Your task to perform on an android device: check data usage Image 0: 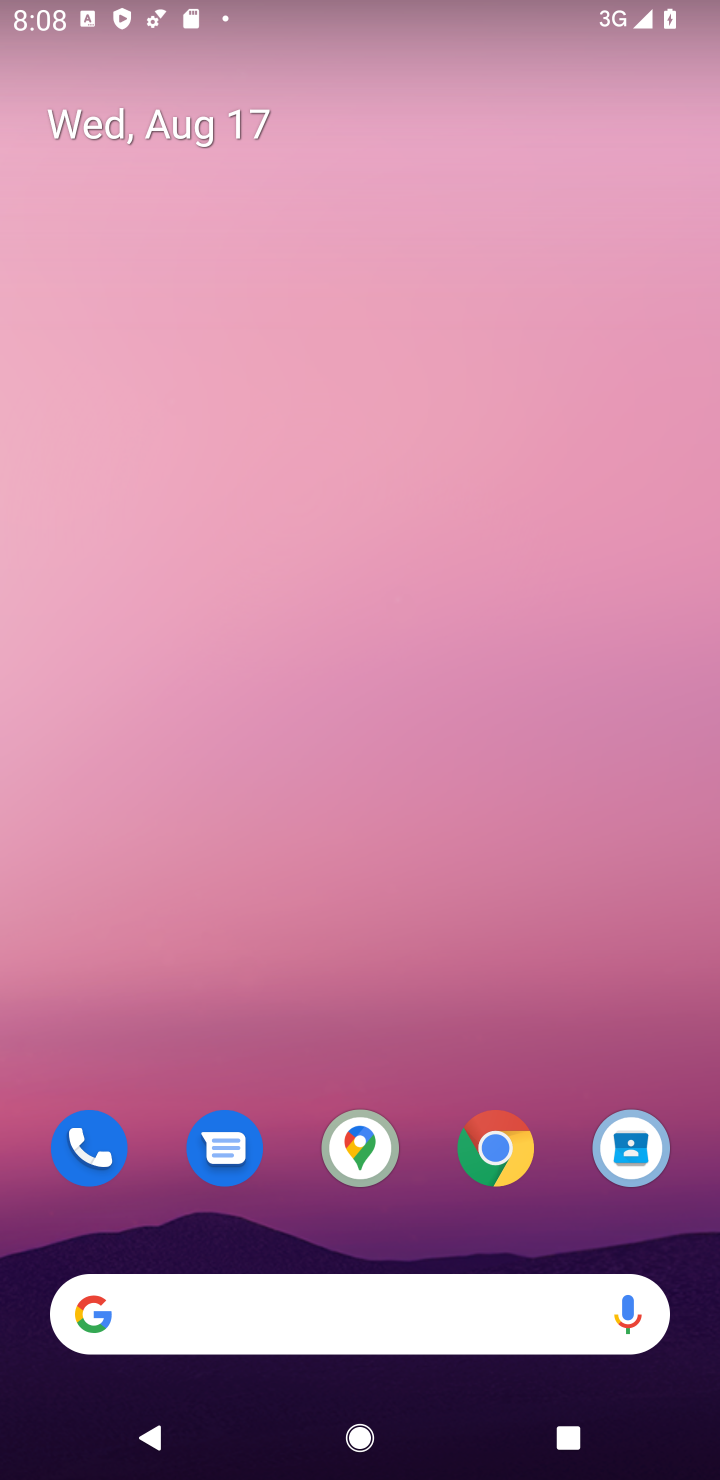
Step 0: drag from (560, 1224) to (509, 184)
Your task to perform on an android device: check data usage Image 1: 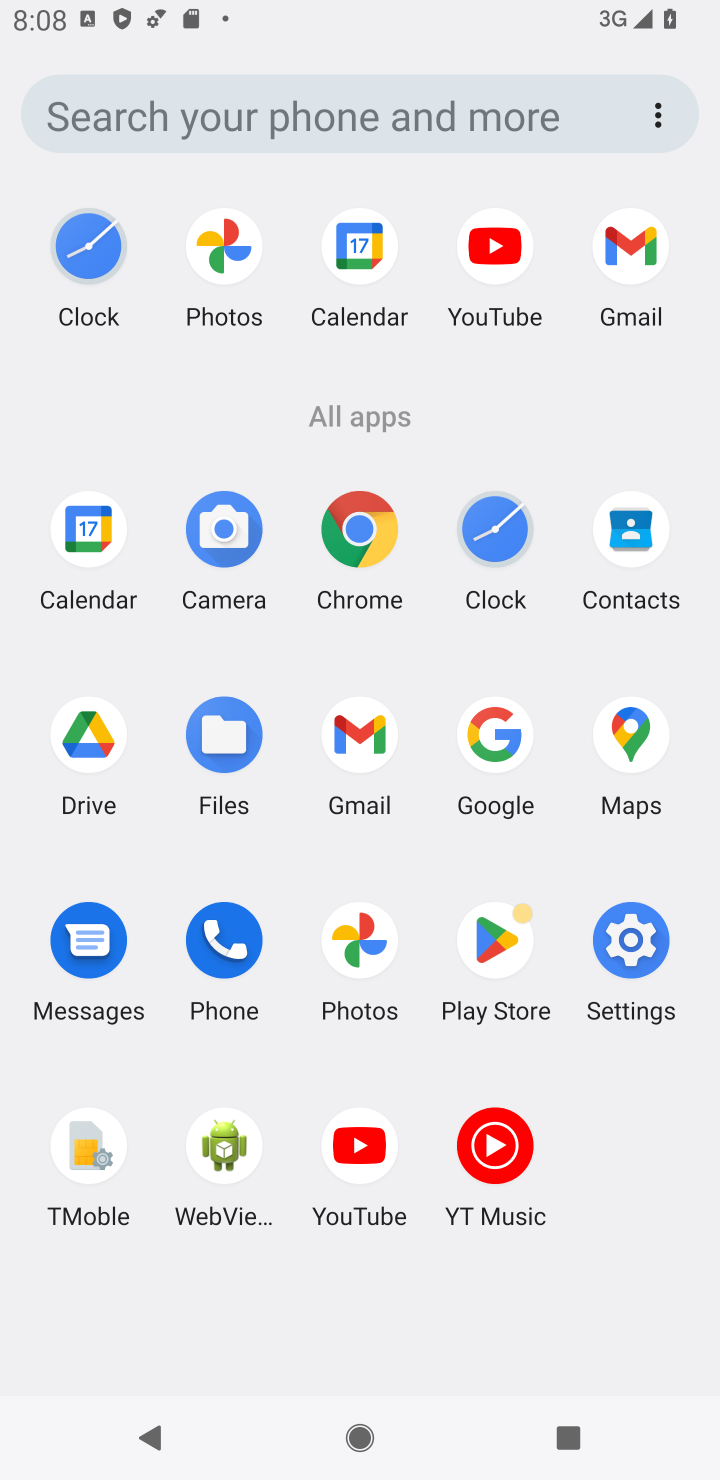
Step 1: click (629, 943)
Your task to perform on an android device: check data usage Image 2: 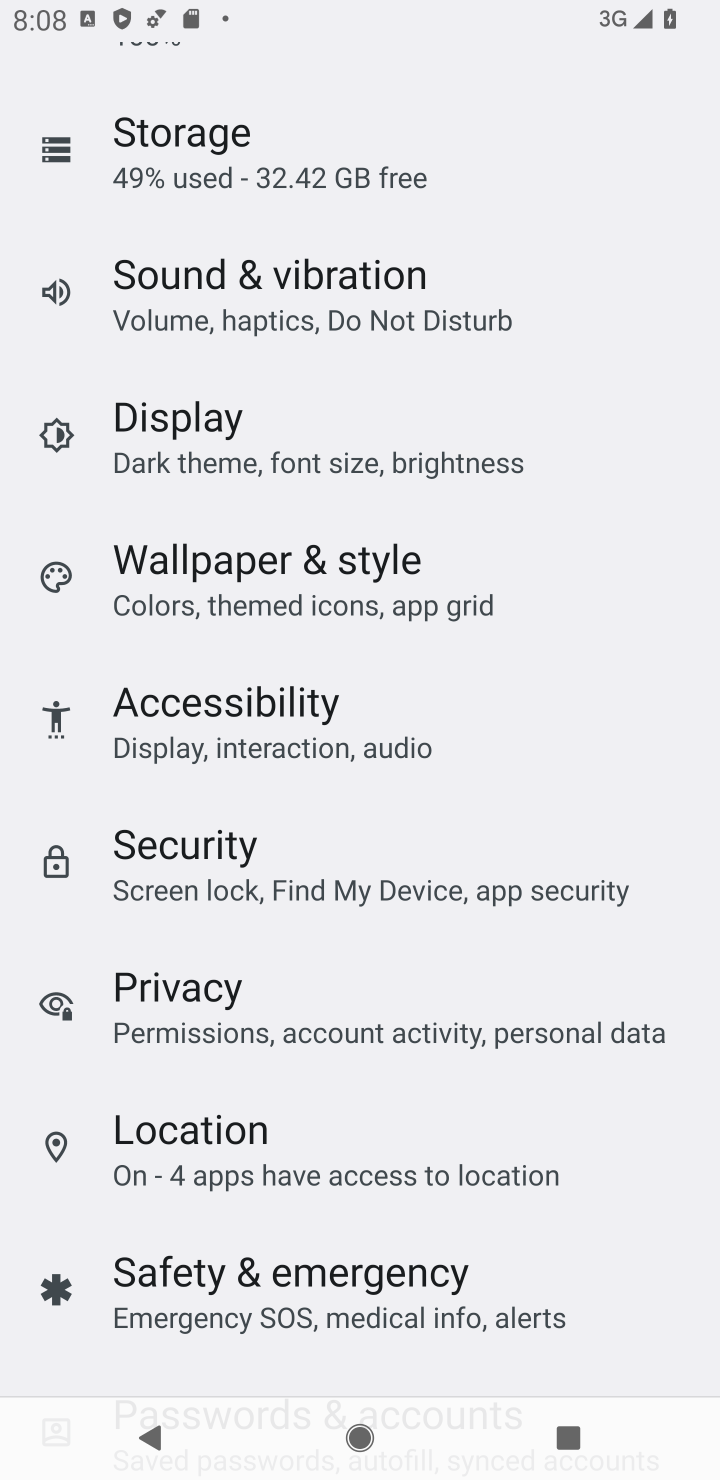
Step 2: drag from (610, 323) to (640, 892)
Your task to perform on an android device: check data usage Image 3: 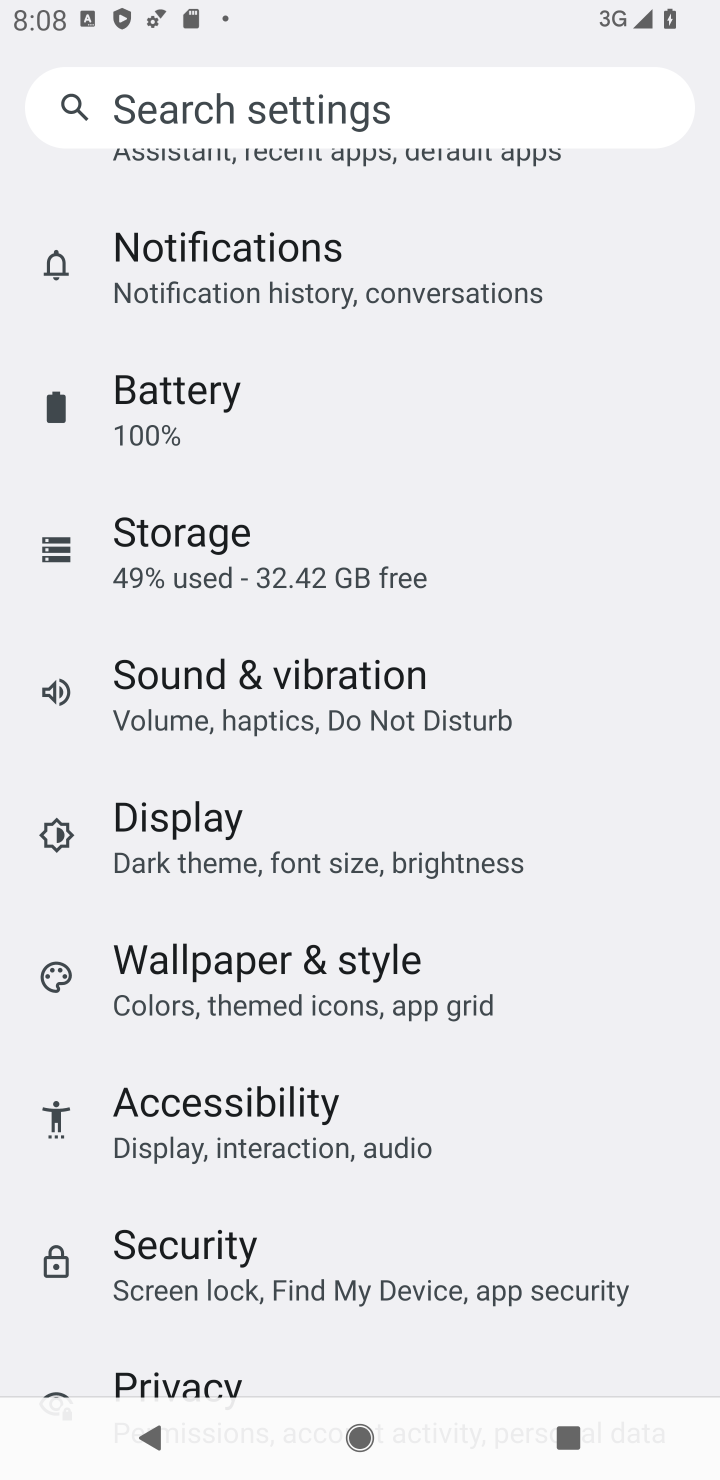
Step 3: drag from (598, 366) to (578, 867)
Your task to perform on an android device: check data usage Image 4: 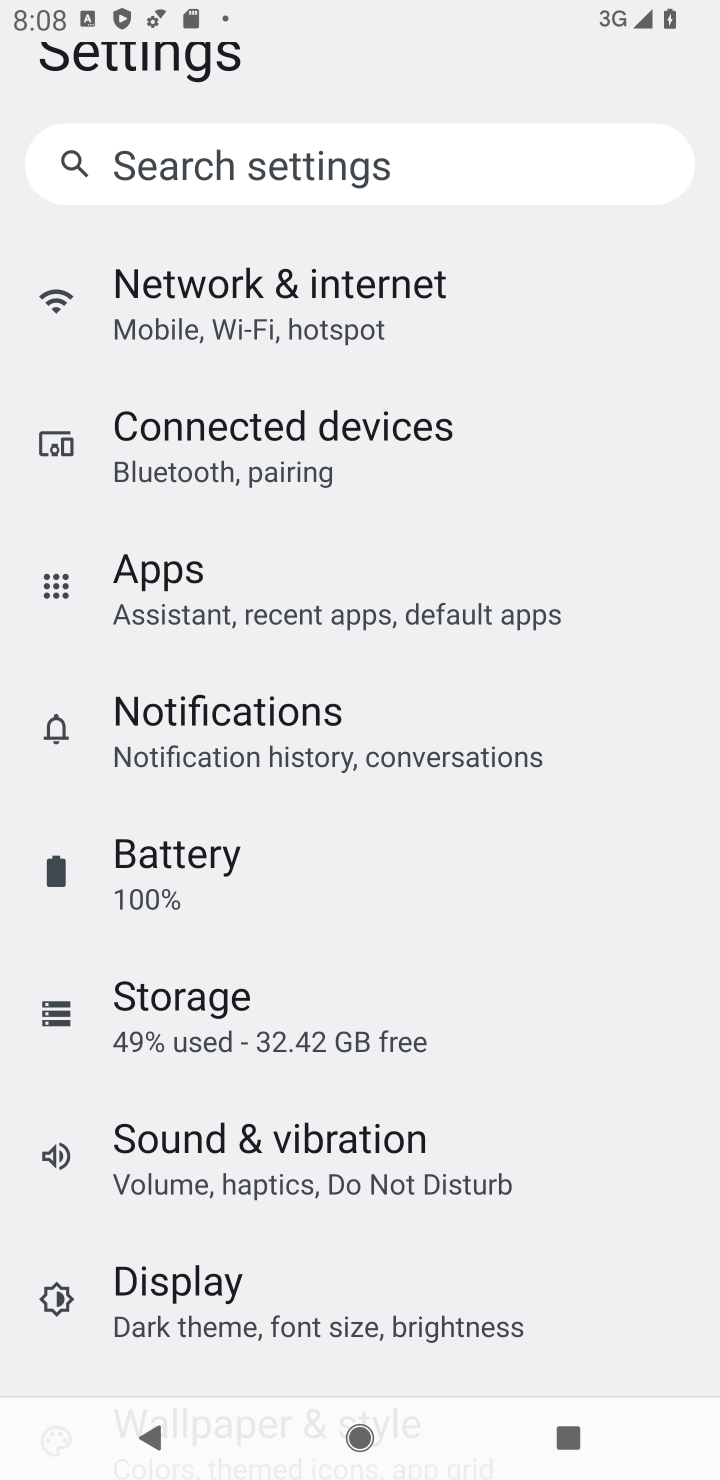
Step 4: click (217, 287)
Your task to perform on an android device: check data usage Image 5: 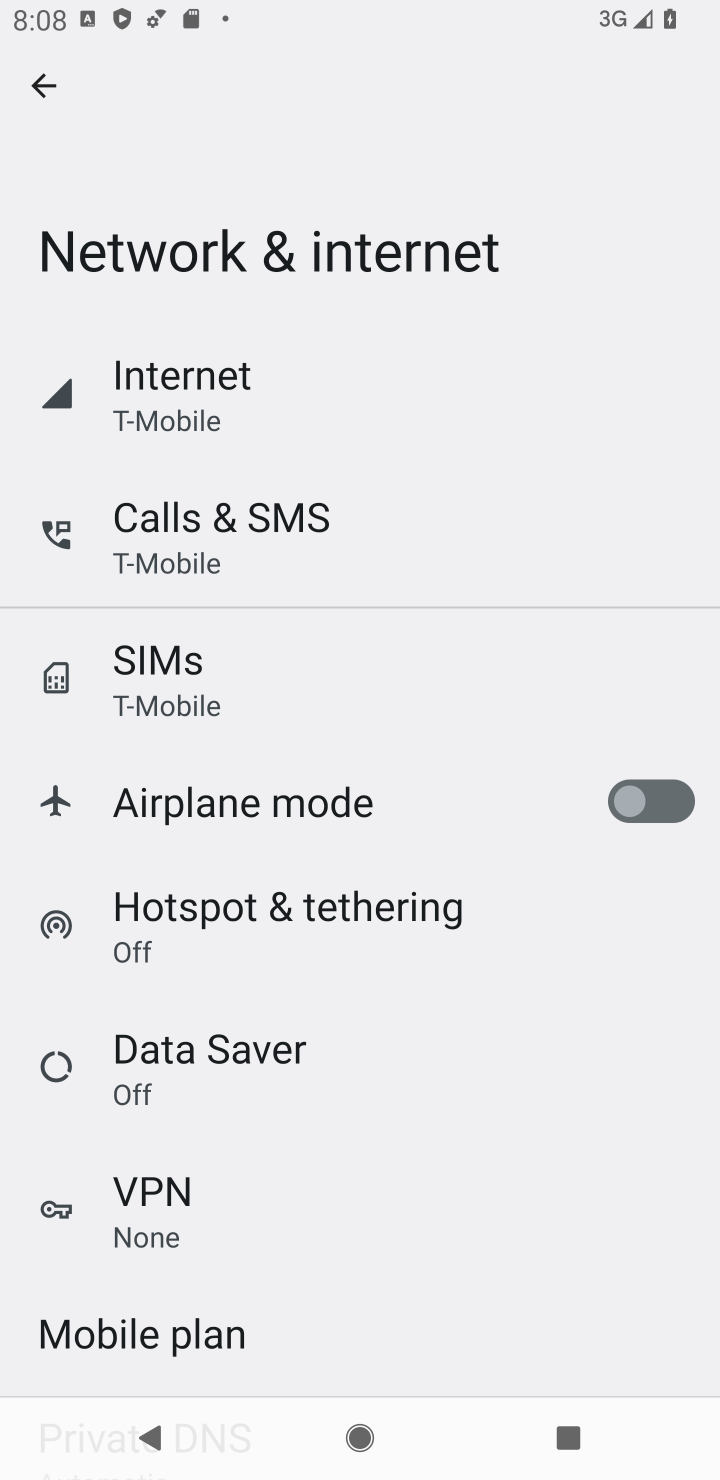
Step 5: click (179, 378)
Your task to perform on an android device: check data usage Image 6: 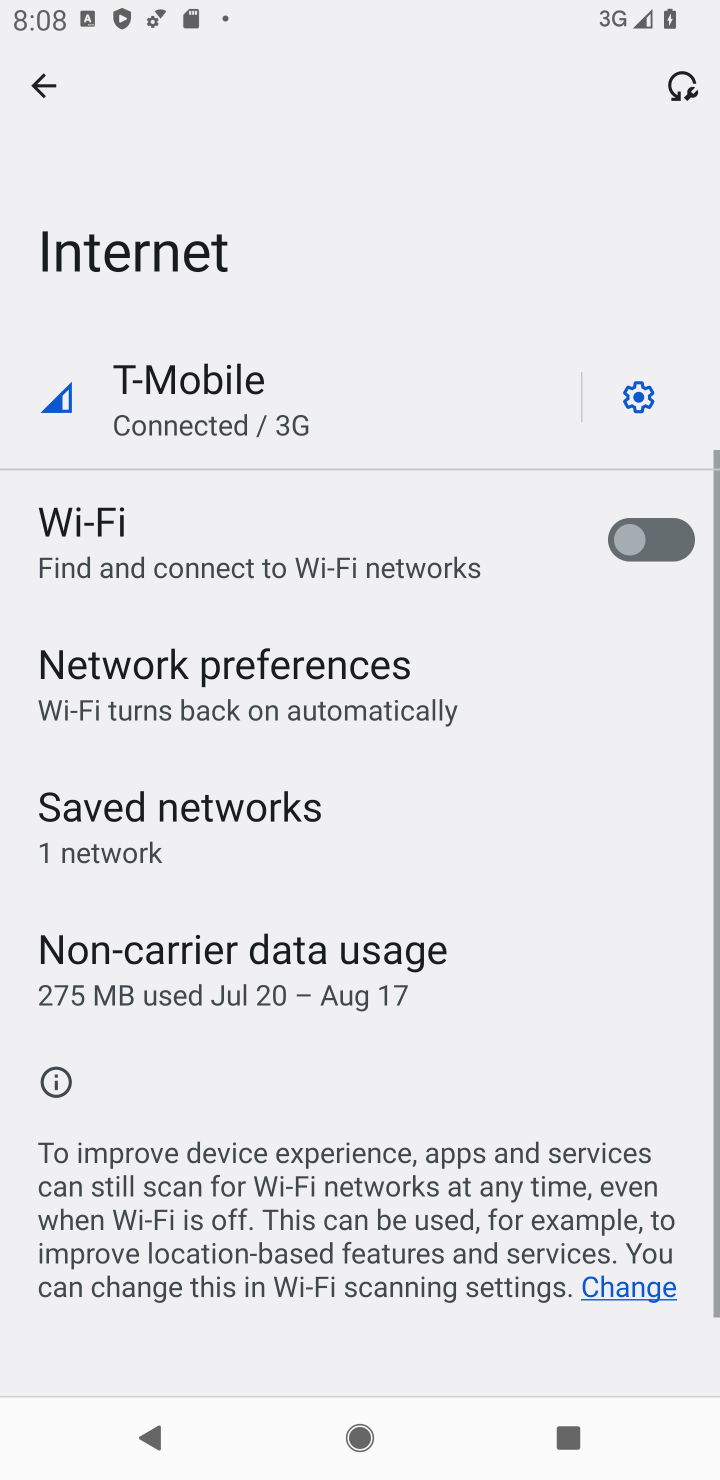
Step 6: click (633, 396)
Your task to perform on an android device: check data usage Image 7: 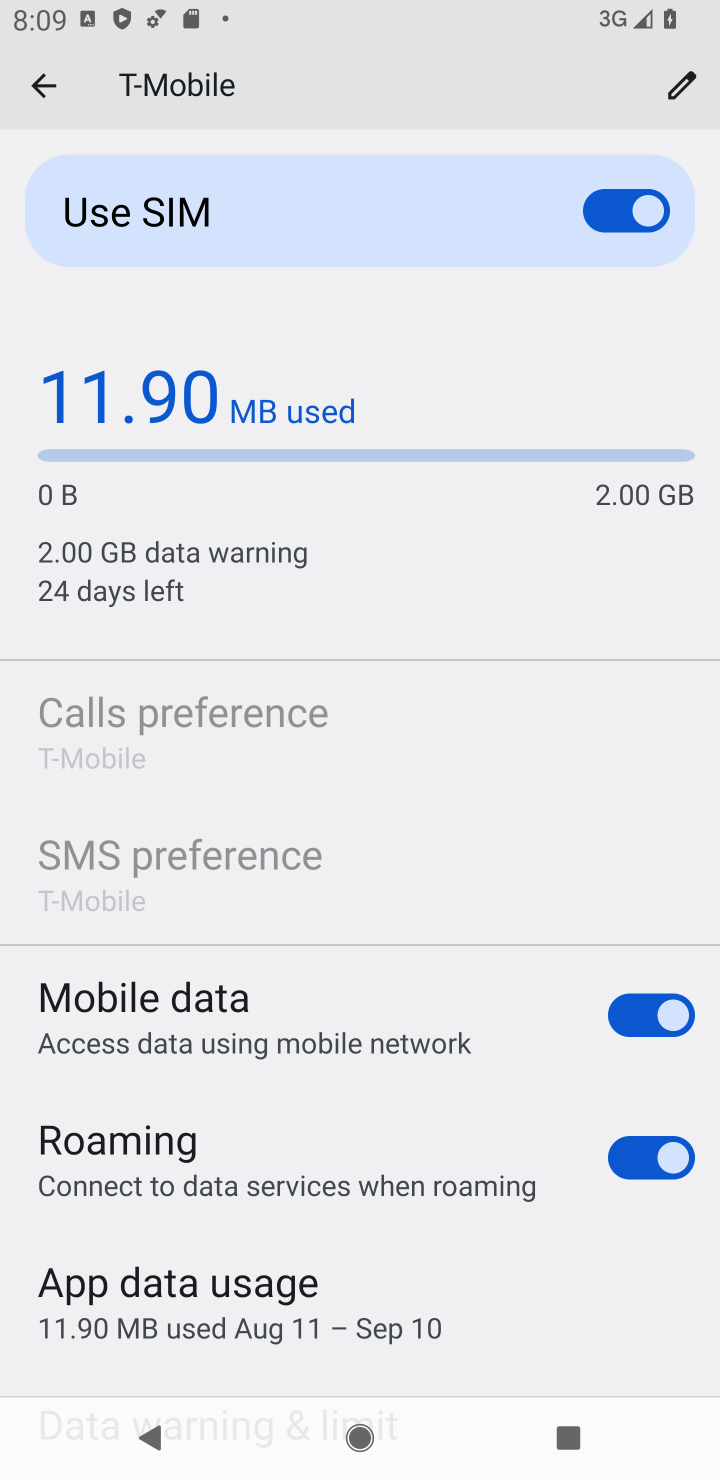
Step 7: task complete